Your task to perform on an android device: Turn off the flashlight Image 0: 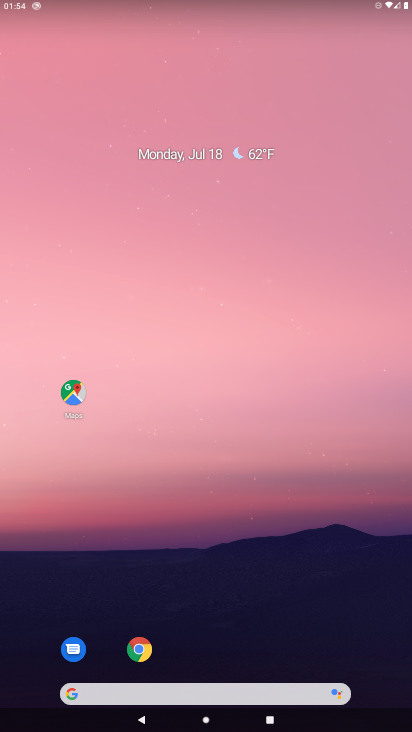
Step 0: drag from (18, 682) to (168, 231)
Your task to perform on an android device: Turn off the flashlight Image 1: 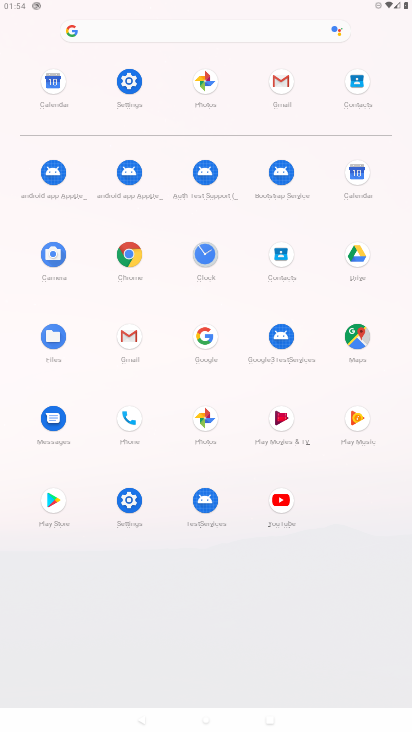
Step 1: click (134, 511)
Your task to perform on an android device: Turn off the flashlight Image 2: 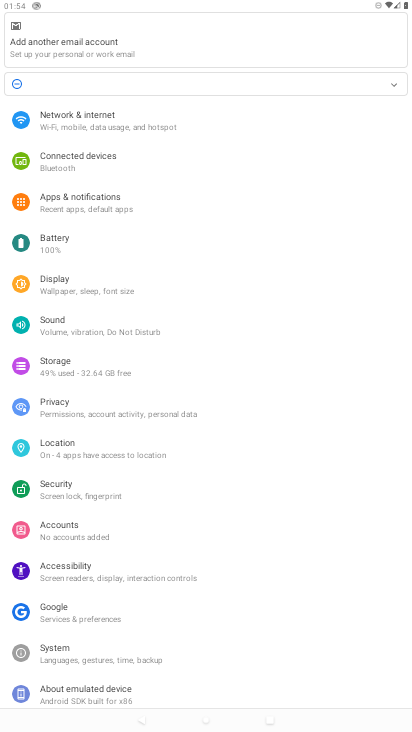
Step 2: click (126, 415)
Your task to perform on an android device: Turn off the flashlight Image 3: 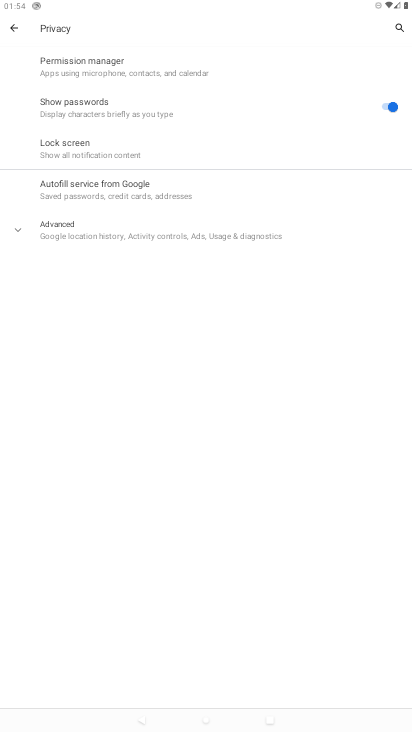
Step 3: click (156, 231)
Your task to perform on an android device: Turn off the flashlight Image 4: 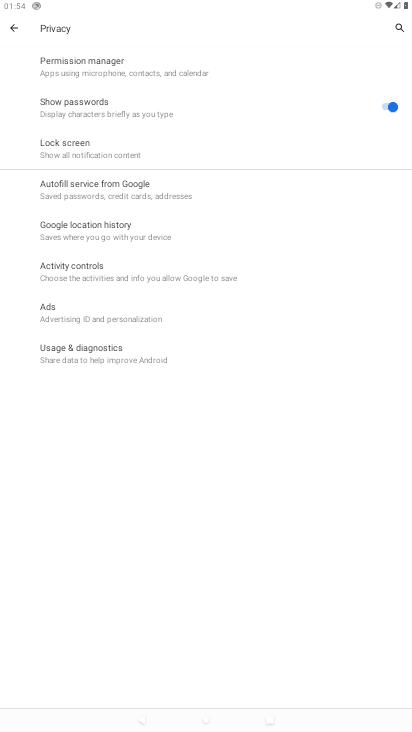
Step 4: task complete